Your task to perform on an android device: Open Chrome and go to the settings page Image 0: 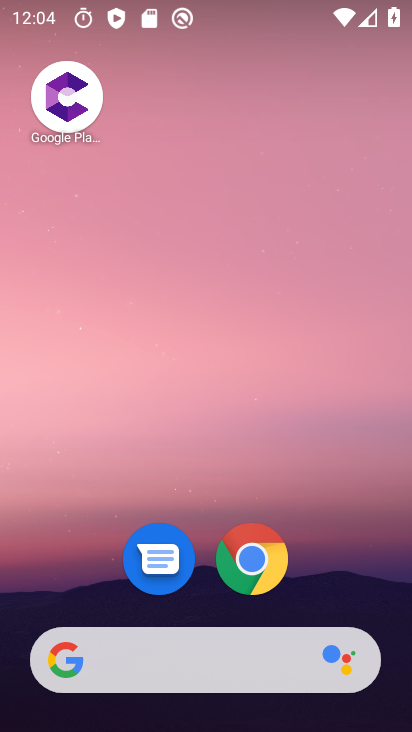
Step 0: drag from (96, 579) to (130, 44)
Your task to perform on an android device: Open Chrome and go to the settings page Image 1: 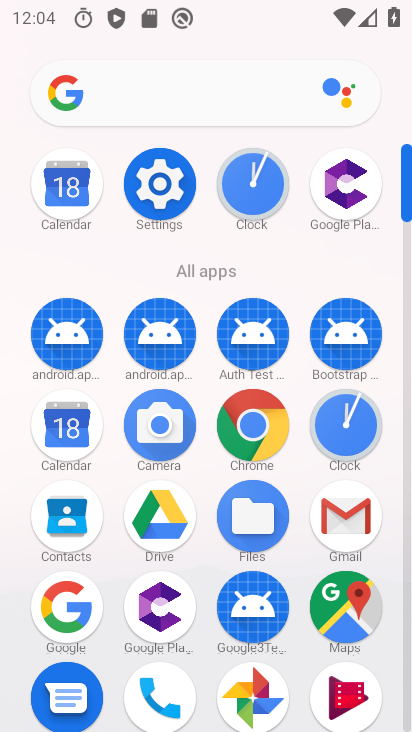
Step 1: click (260, 448)
Your task to perform on an android device: Open Chrome and go to the settings page Image 2: 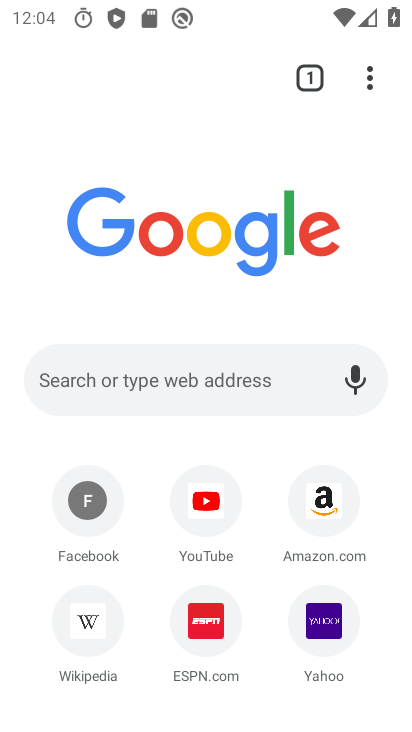
Step 2: task complete